Your task to perform on an android device: Open sound settings Image 0: 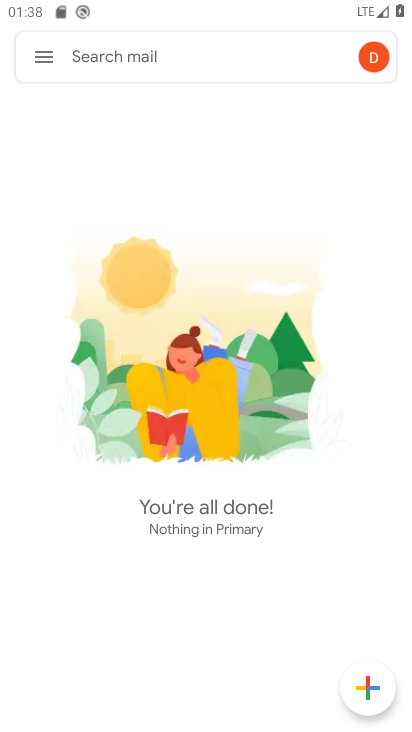
Step 0: press home button
Your task to perform on an android device: Open sound settings Image 1: 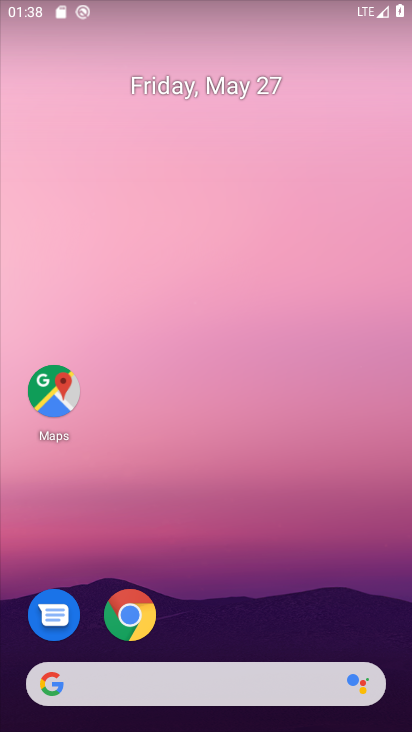
Step 1: drag from (375, 604) to (372, 161)
Your task to perform on an android device: Open sound settings Image 2: 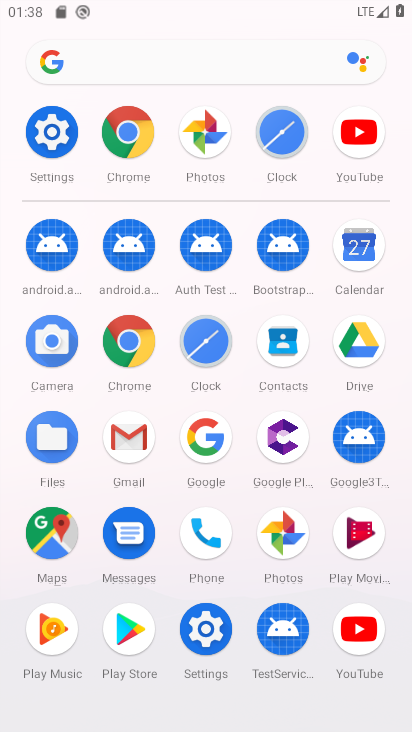
Step 2: click (210, 644)
Your task to perform on an android device: Open sound settings Image 3: 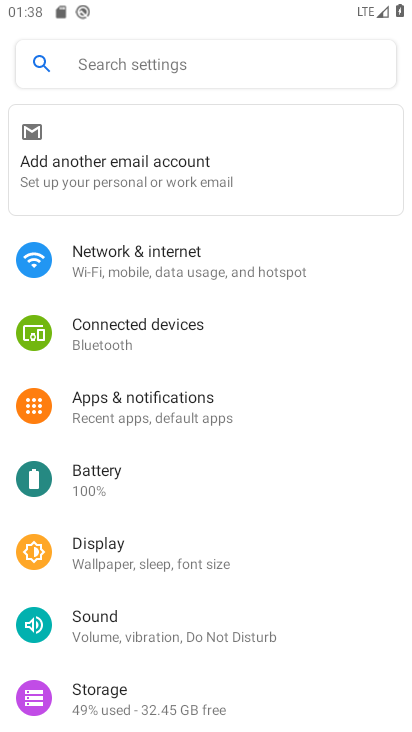
Step 3: drag from (333, 581) to (339, 482)
Your task to perform on an android device: Open sound settings Image 4: 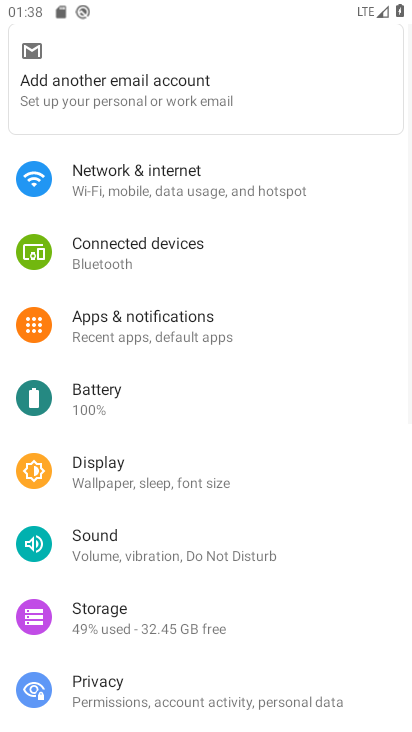
Step 4: drag from (347, 616) to (353, 530)
Your task to perform on an android device: Open sound settings Image 5: 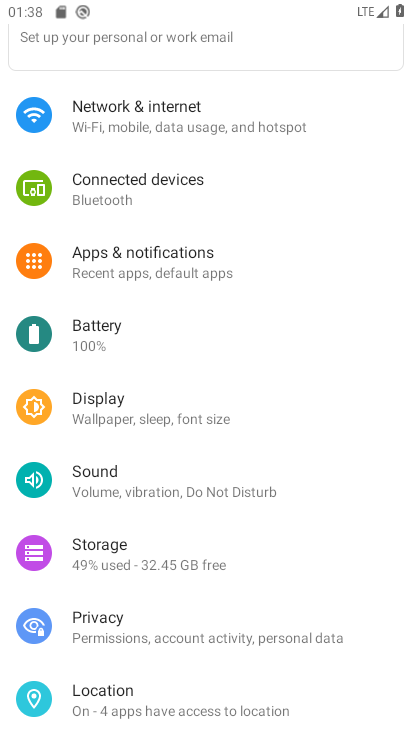
Step 5: drag from (353, 611) to (357, 487)
Your task to perform on an android device: Open sound settings Image 6: 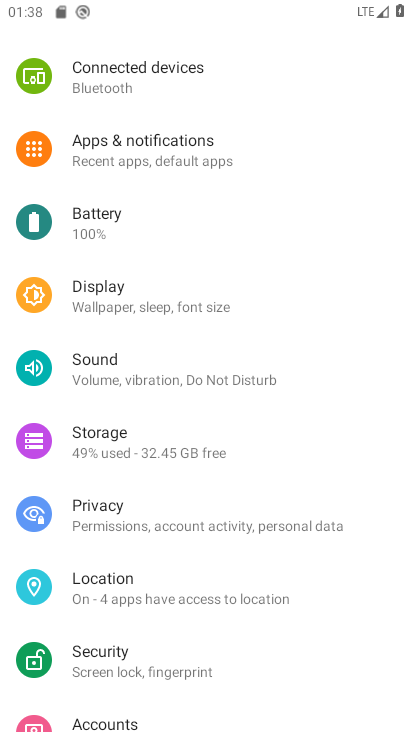
Step 6: drag from (378, 607) to (390, 523)
Your task to perform on an android device: Open sound settings Image 7: 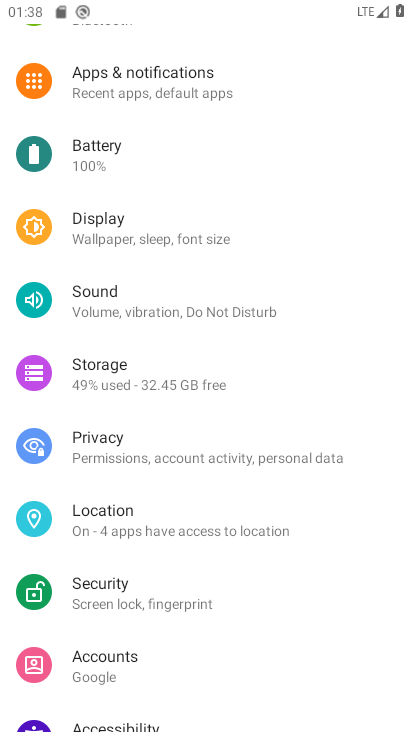
Step 7: drag from (355, 623) to (354, 521)
Your task to perform on an android device: Open sound settings Image 8: 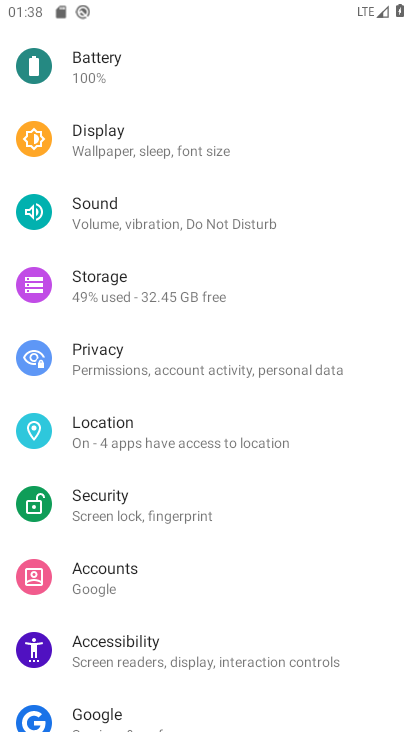
Step 8: drag from (360, 600) to (361, 518)
Your task to perform on an android device: Open sound settings Image 9: 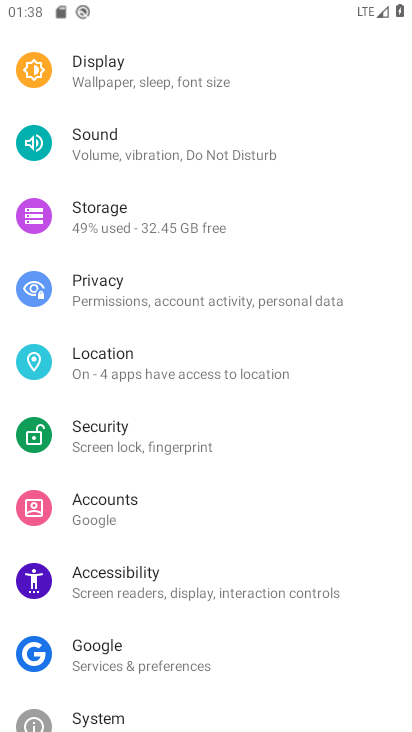
Step 9: drag from (357, 605) to (356, 508)
Your task to perform on an android device: Open sound settings Image 10: 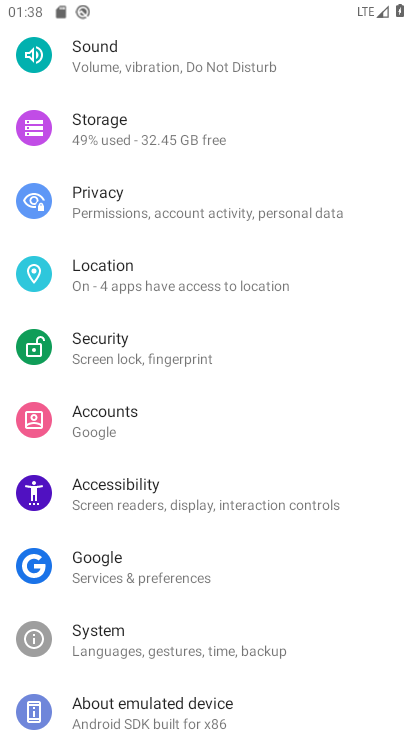
Step 10: drag from (344, 400) to (345, 484)
Your task to perform on an android device: Open sound settings Image 11: 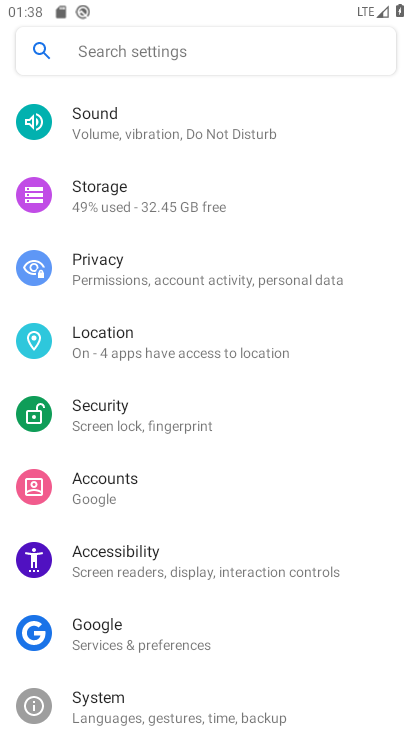
Step 11: drag from (348, 351) to (352, 453)
Your task to perform on an android device: Open sound settings Image 12: 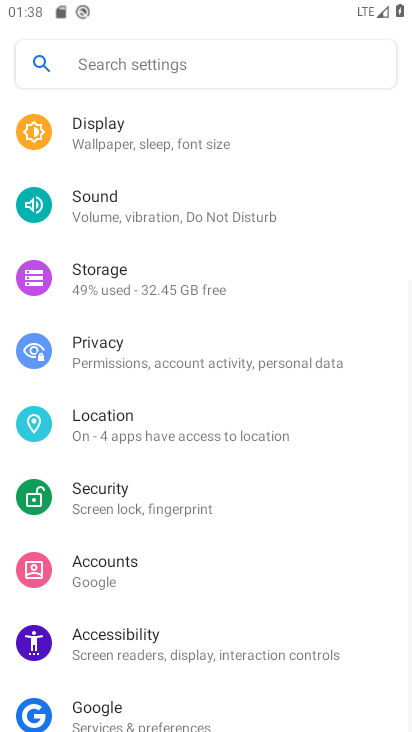
Step 12: drag from (357, 293) to (362, 397)
Your task to perform on an android device: Open sound settings Image 13: 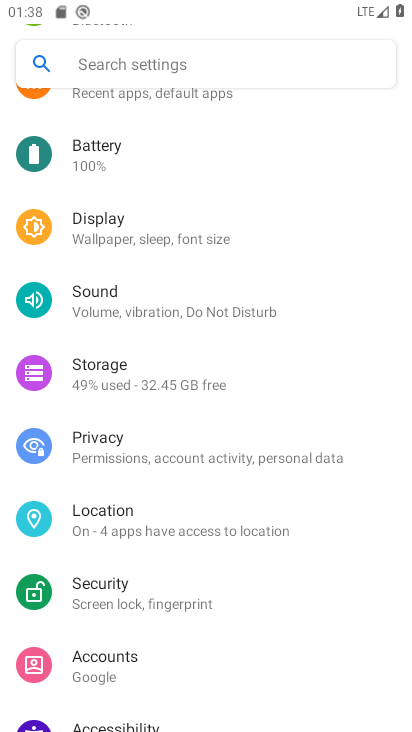
Step 13: drag from (368, 248) to (365, 413)
Your task to perform on an android device: Open sound settings Image 14: 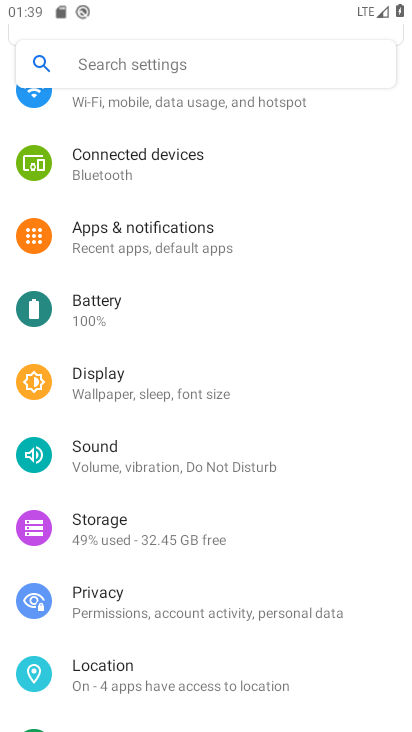
Step 14: drag from (346, 263) to (349, 488)
Your task to perform on an android device: Open sound settings Image 15: 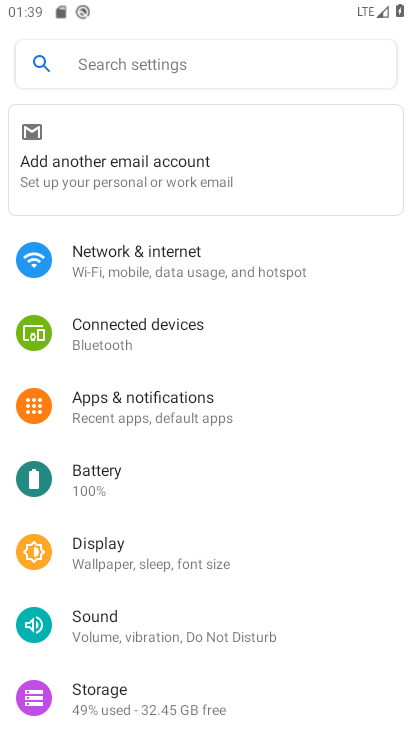
Step 15: click (264, 634)
Your task to perform on an android device: Open sound settings Image 16: 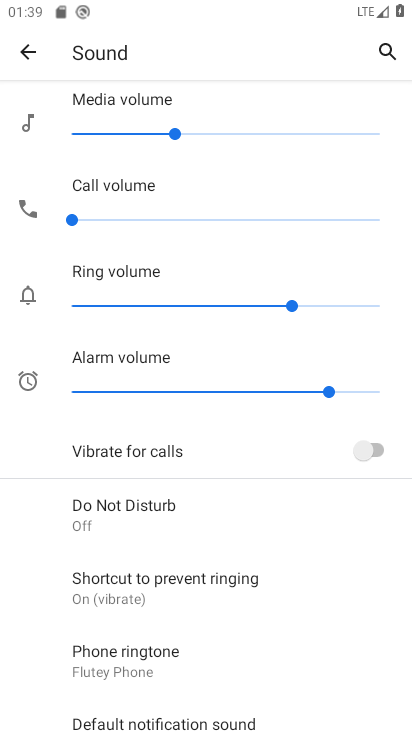
Step 16: task complete